Your task to perform on an android device: Go to Google Image 0: 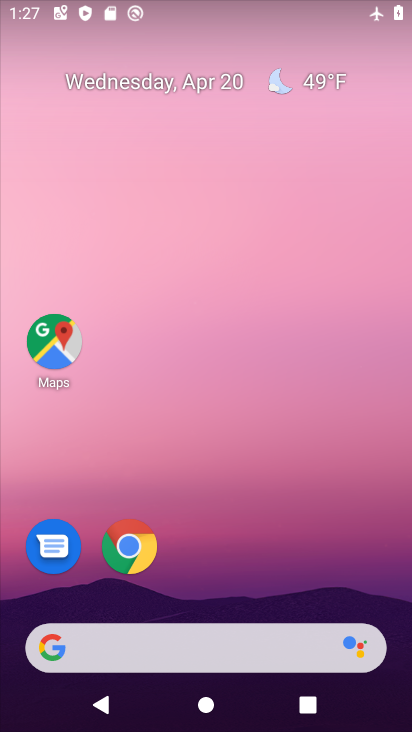
Step 0: drag from (296, 586) to (316, 257)
Your task to perform on an android device: Go to Google Image 1: 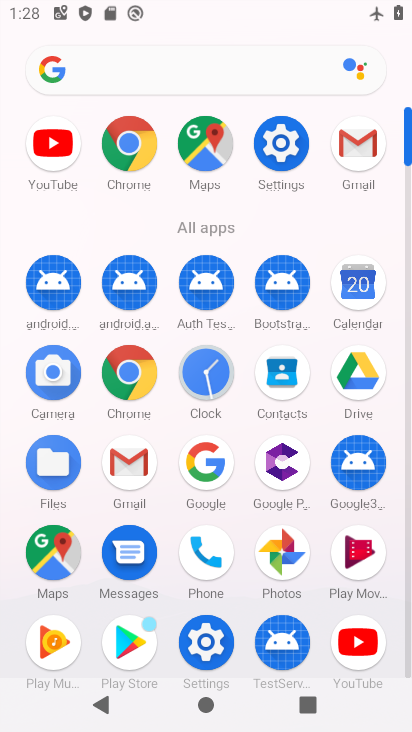
Step 1: click (201, 455)
Your task to perform on an android device: Go to Google Image 2: 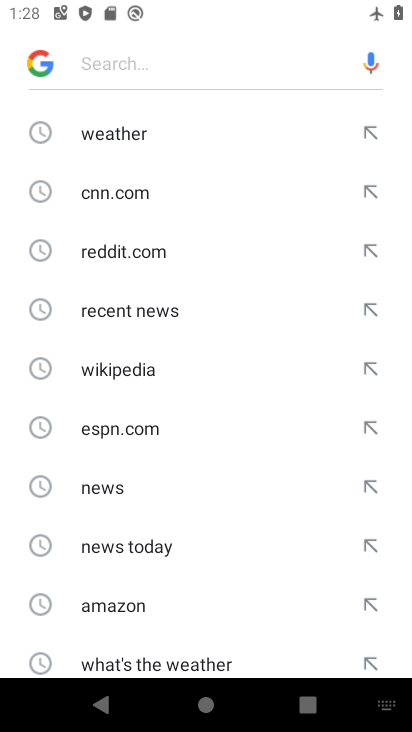
Step 2: task complete